Your task to perform on an android device: turn notification dots on Image 0: 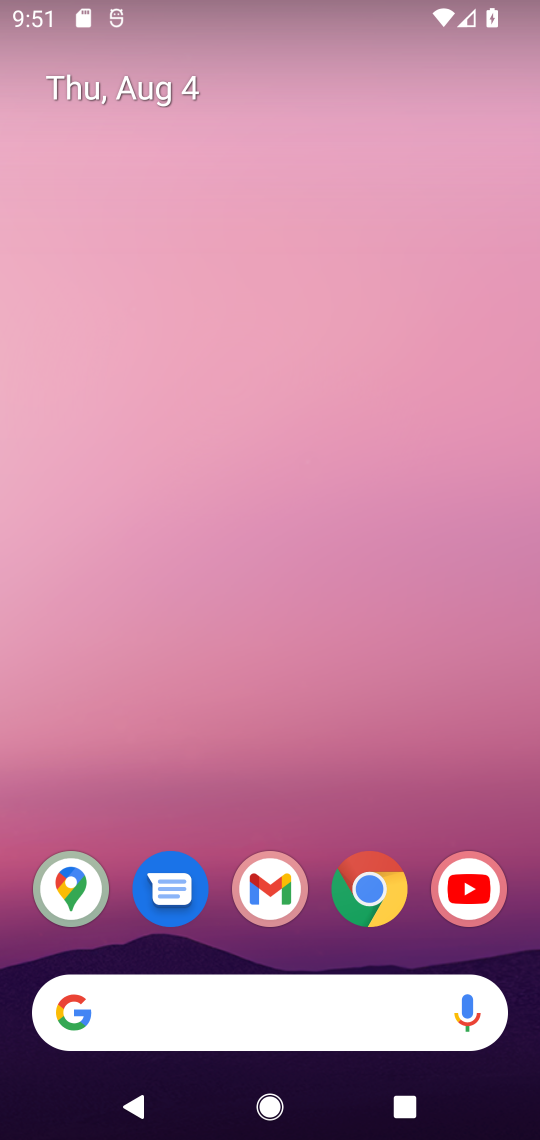
Step 0: press home button
Your task to perform on an android device: turn notification dots on Image 1: 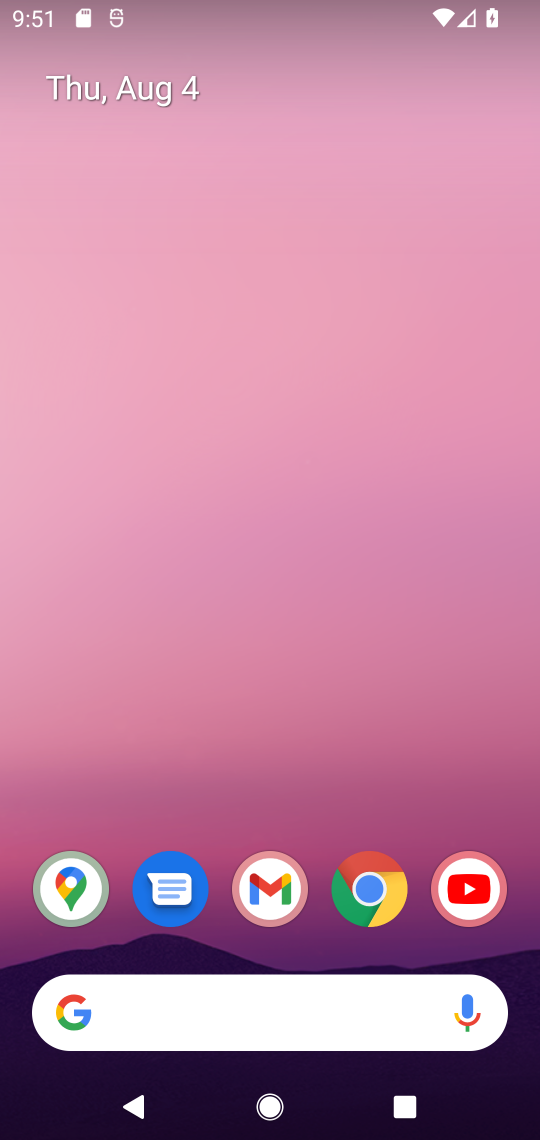
Step 1: drag from (319, 808) to (342, 321)
Your task to perform on an android device: turn notification dots on Image 2: 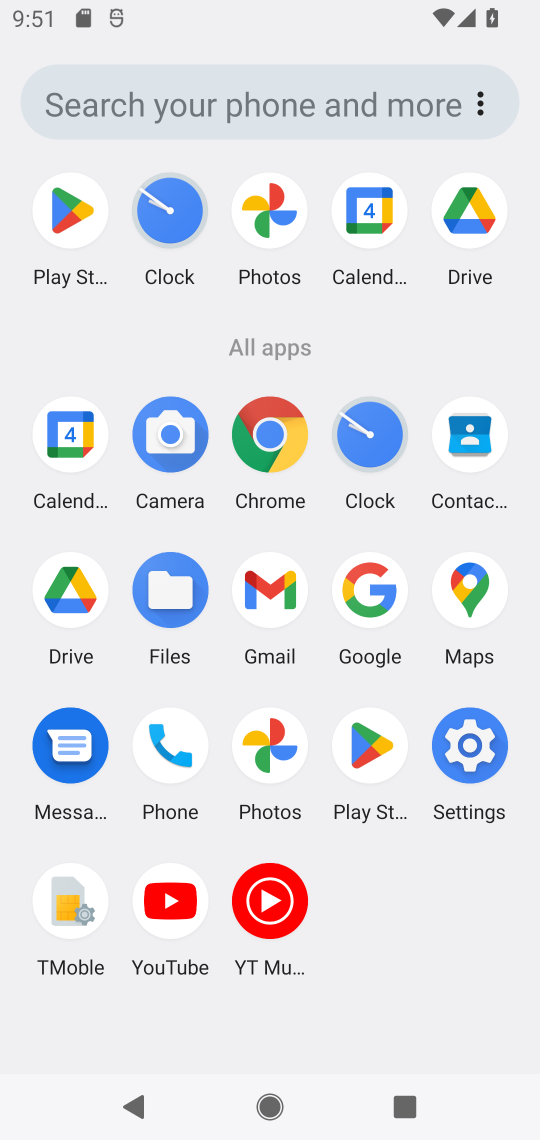
Step 2: click (473, 743)
Your task to perform on an android device: turn notification dots on Image 3: 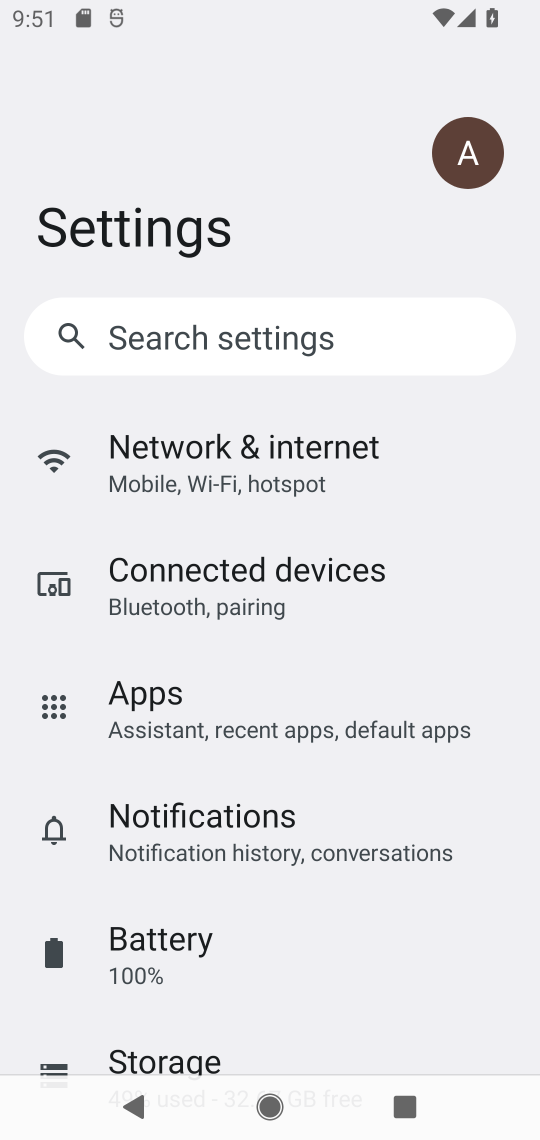
Step 3: drag from (468, 933) to (464, 815)
Your task to perform on an android device: turn notification dots on Image 4: 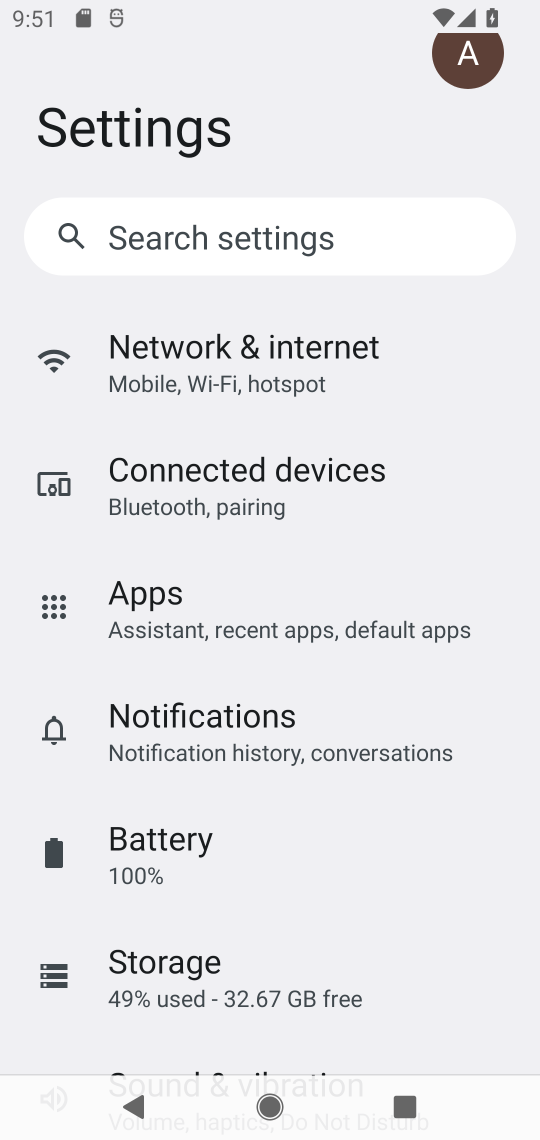
Step 4: drag from (466, 986) to (481, 775)
Your task to perform on an android device: turn notification dots on Image 5: 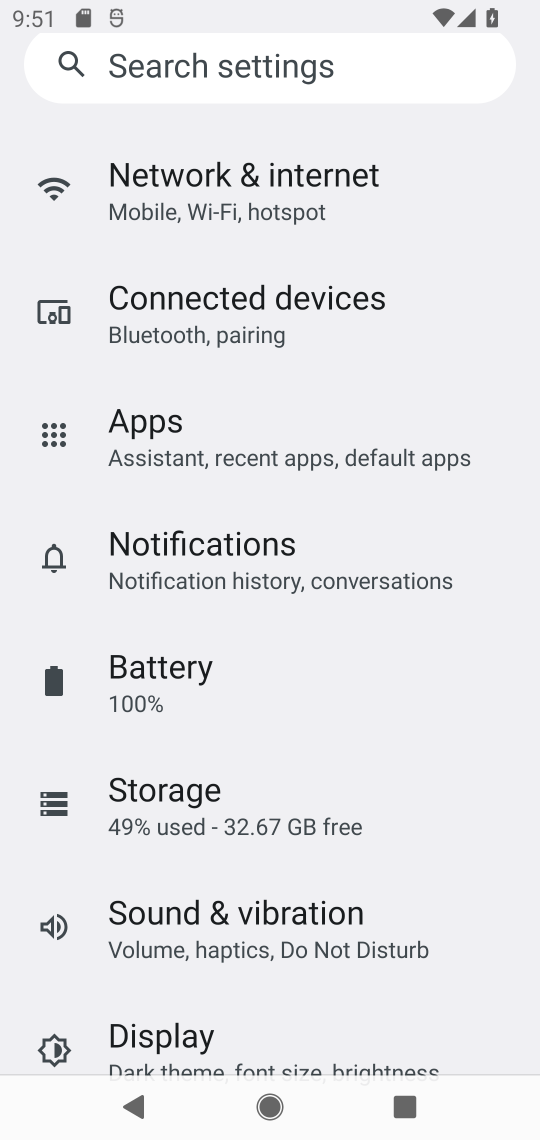
Step 5: click (417, 565)
Your task to perform on an android device: turn notification dots on Image 6: 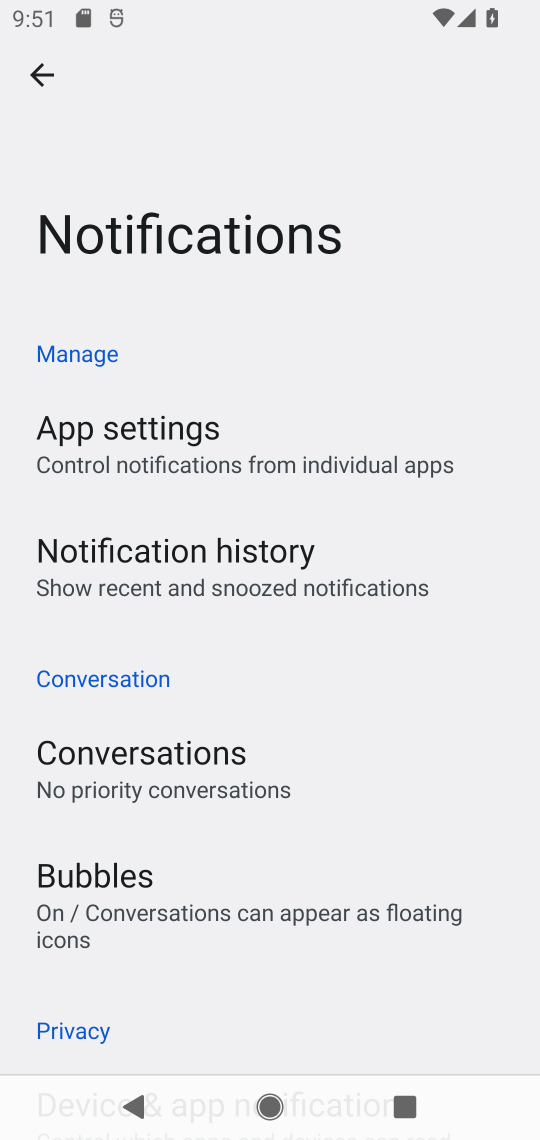
Step 6: task complete